Your task to perform on an android device: change the clock display to analog Image 0: 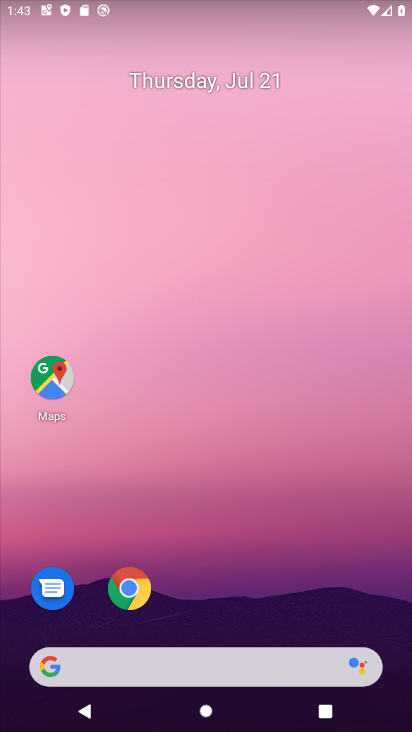
Step 0: drag from (232, 615) to (220, 8)
Your task to perform on an android device: change the clock display to analog Image 1: 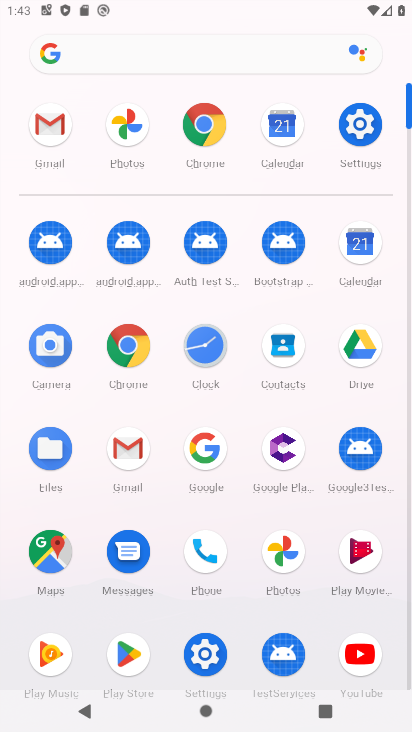
Step 1: click (183, 364)
Your task to perform on an android device: change the clock display to analog Image 2: 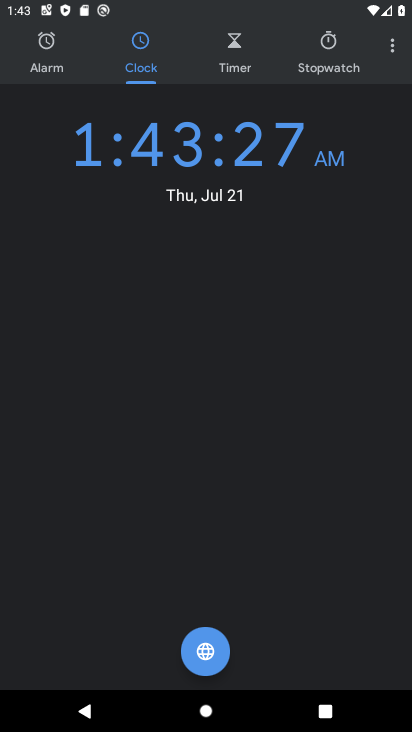
Step 2: click (387, 31)
Your task to perform on an android device: change the clock display to analog Image 3: 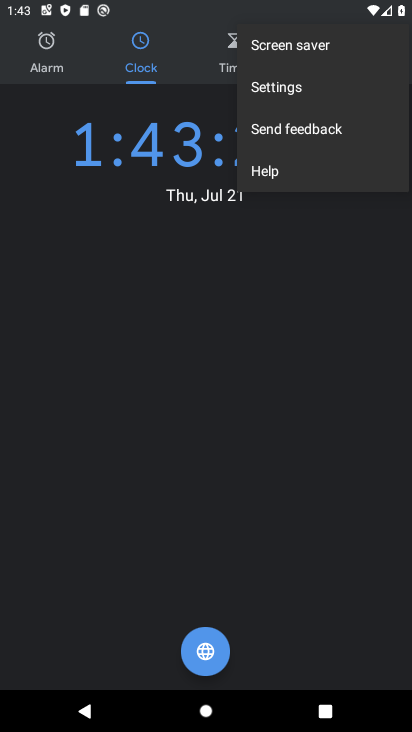
Step 3: click (287, 80)
Your task to perform on an android device: change the clock display to analog Image 4: 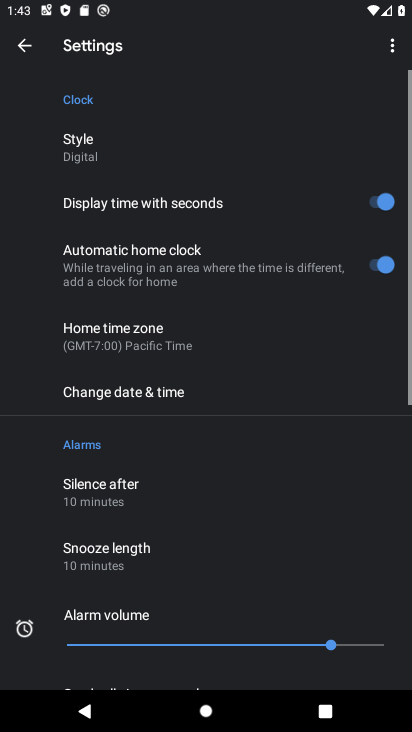
Step 4: click (114, 148)
Your task to perform on an android device: change the clock display to analog Image 5: 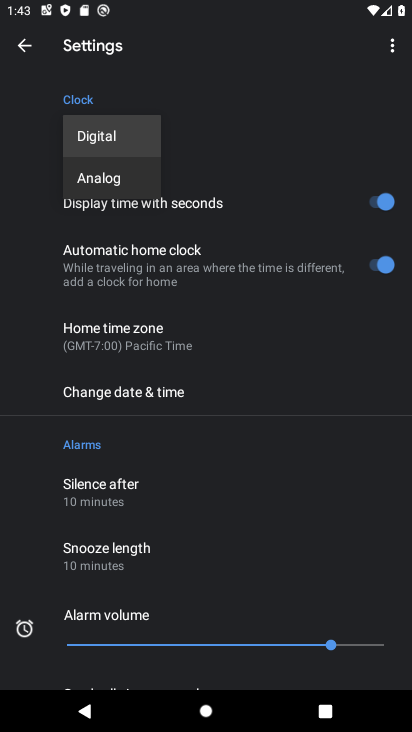
Step 5: click (136, 174)
Your task to perform on an android device: change the clock display to analog Image 6: 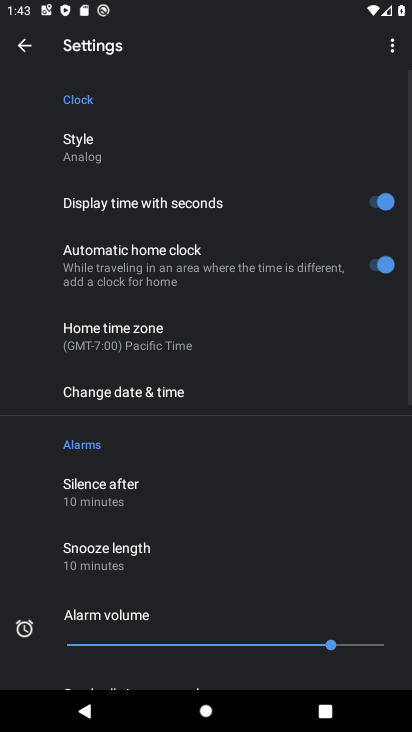
Step 6: task complete